Your task to perform on an android device: change the clock display to digital Image 0: 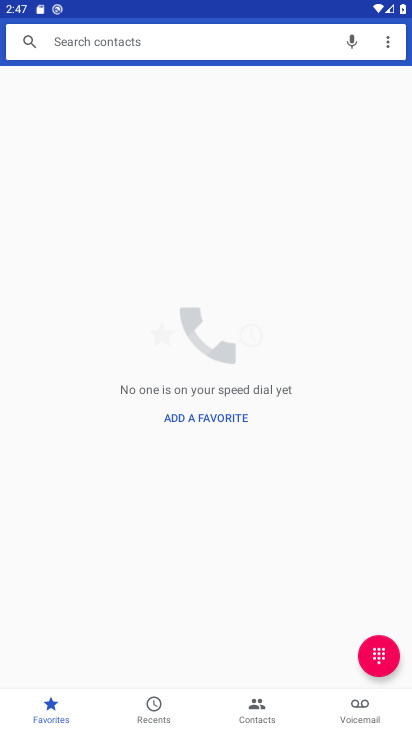
Step 0: press home button
Your task to perform on an android device: change the clock display to digital Image 1: 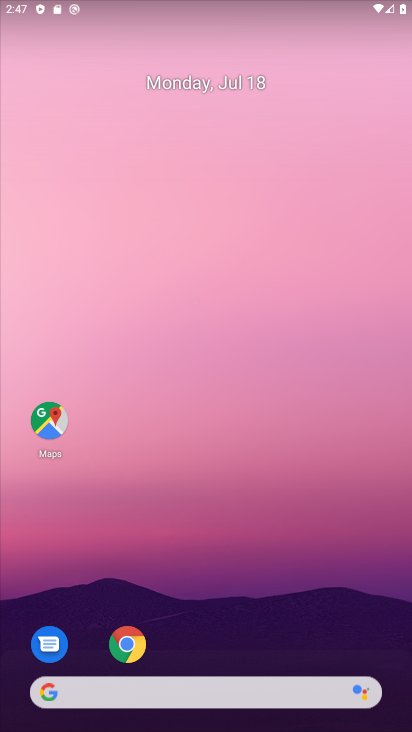
Step 1: drag from (295, 629) to (216, 178)
Your task to perform on an android device: change the clock display to digital Image 2: 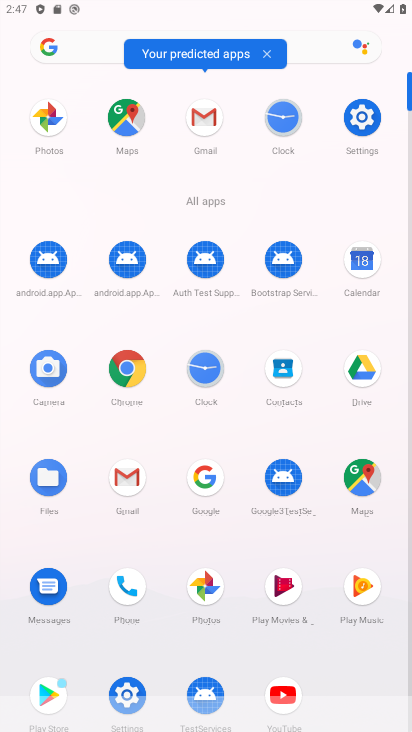
Step 2: click (271, 111)
Your task to perform on an android device: change the clock display to digital Image 3: 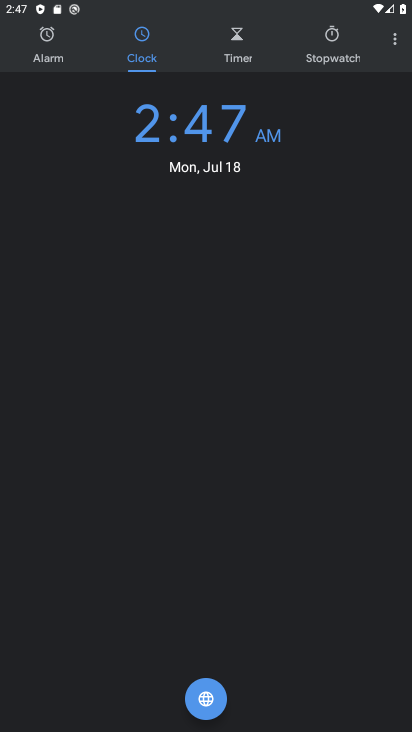
Step 3: click (396, 44)
Your task to perform on an android device: change the clock display to digital Image 4: 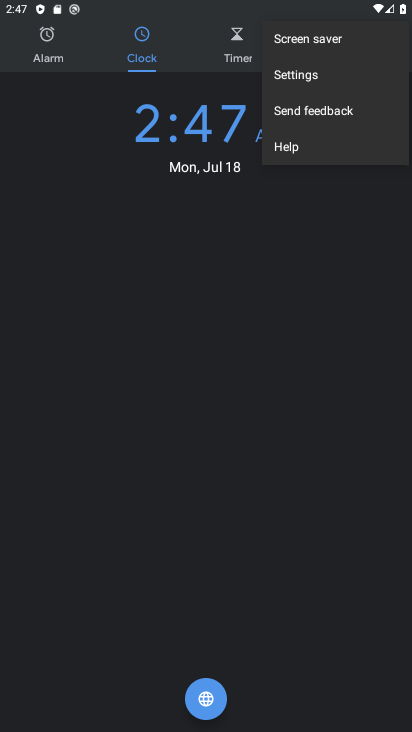
Step 4: click (356, 72)
Your task to perform on an android device: change the clock display to digital Image 5: 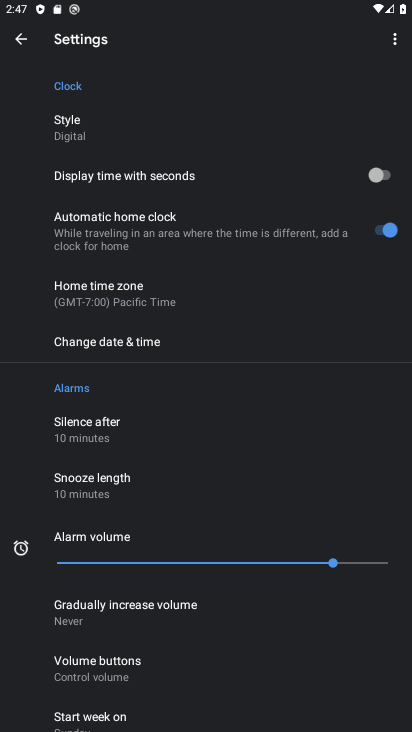
Step 5: click (248, 136)
Your task to perform on an android device: change the clock display to digital Image 6: 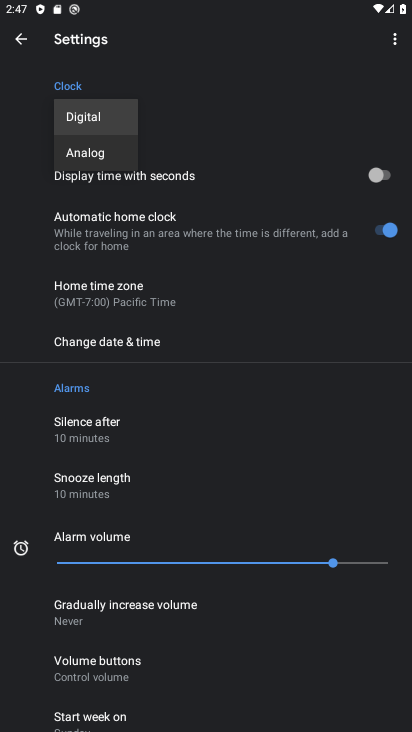
Step 6: task complete